Your task to perform on an android device: Open my contact list Image 0: 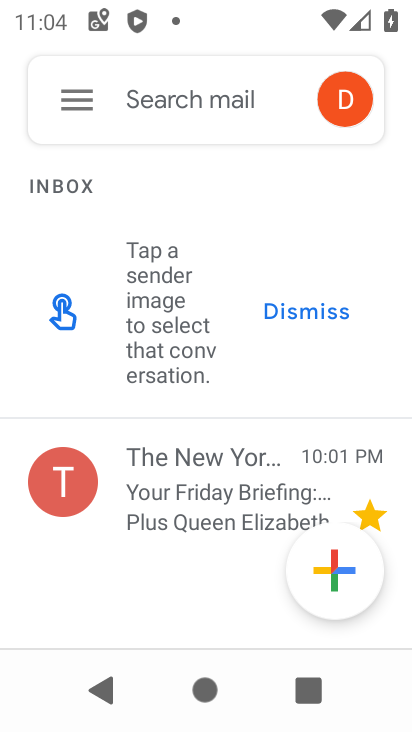
Step 0: press back button
Your task to perform on an android device: Open my contact list Image 1: 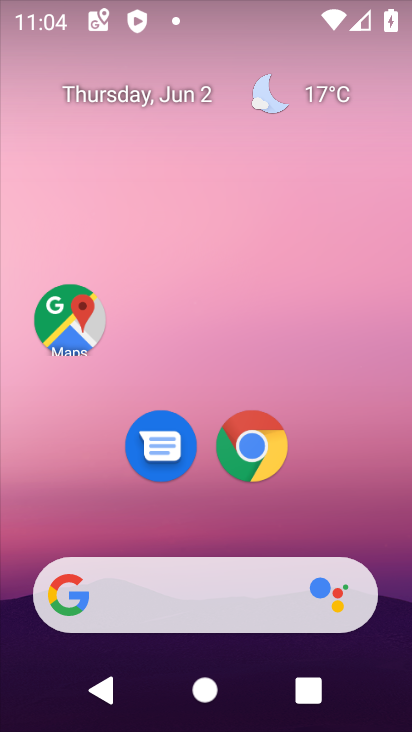
Step 1: drag from (379, 527) to (376, 207)
Your task to perform on an android device: Open my contact list Image 2: 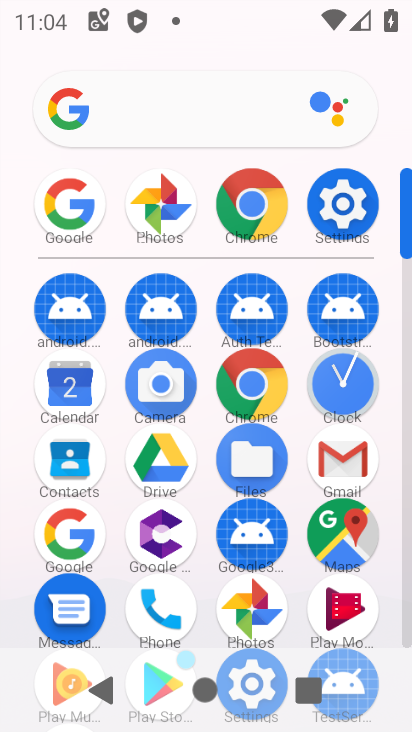
Step 2: click (68, 463)
Your task to perform on an android device: Open my contact list Image 3: 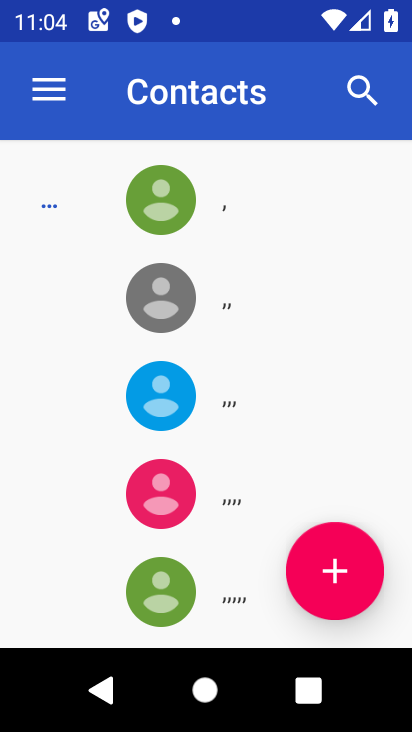
Step 3: task complete